Your task to perform on an android device: set an alarm Image 0: 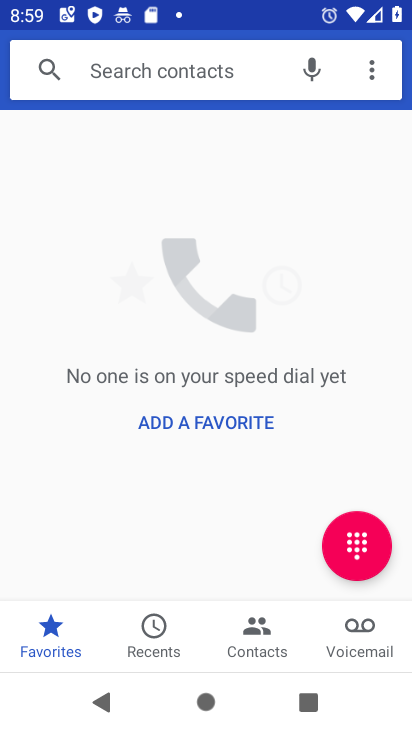
Step 0: press home button
Your task to perform on an android device: set an alarm Image 1: 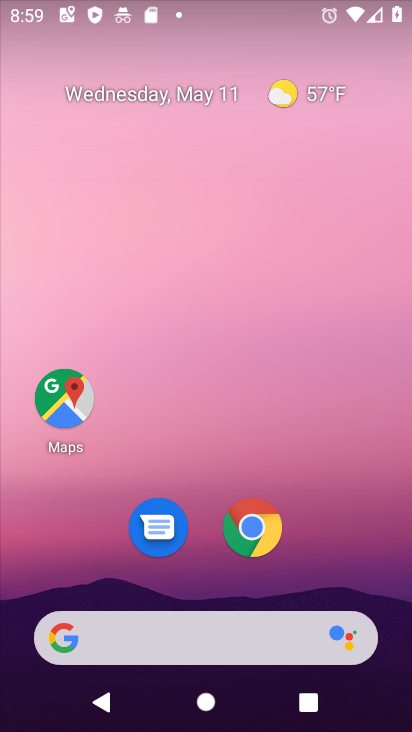
Step 1: drag from (354, 579) to (280, 2)
Your task to perform on an android device: set an alarm Image 2: 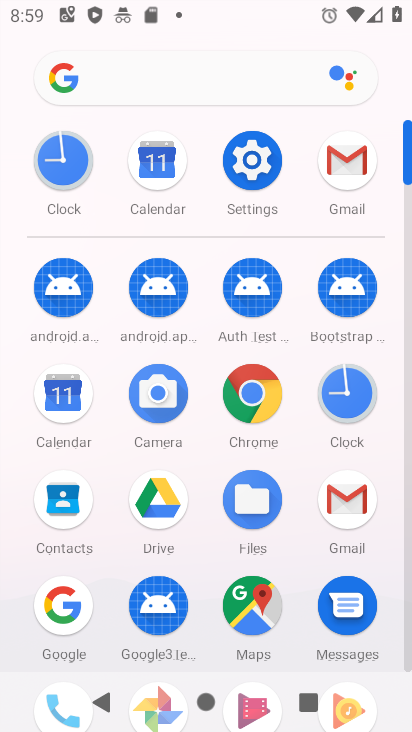
Step 2: click (35, 168)
Your task to perform on an android device: set an alarm Image 3: 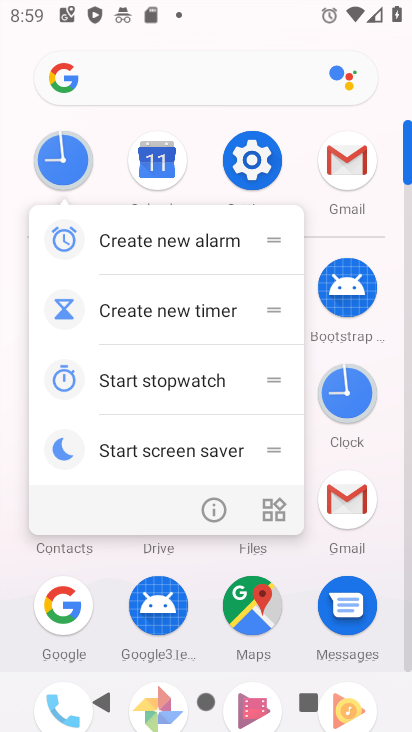
Step 3: click (49, 160)
Your task to perform on an android device: set an alarm Image 4: 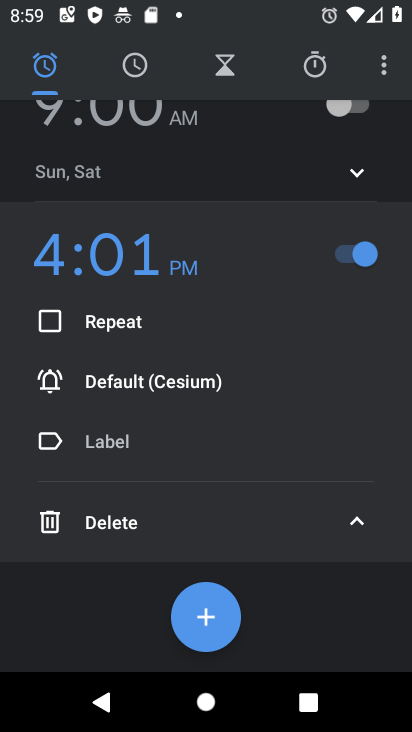
Step 4: click (205, 637)
Your task to perform on an android device: set an alarm Image 5: 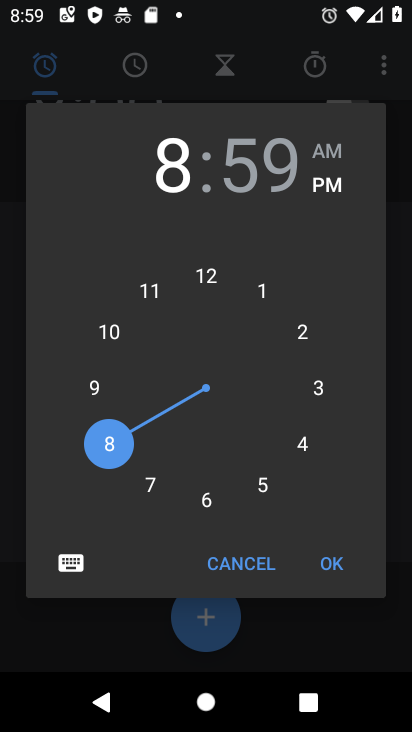
Step 5: click (261, 479)
Your task to perform on an android device: set an alarm Image 6: 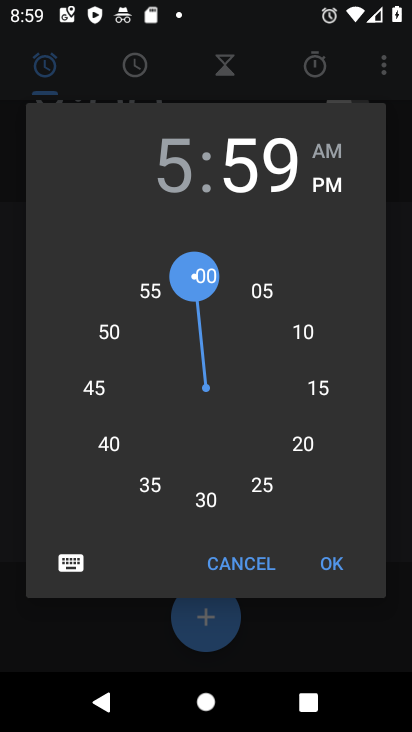
Step 6: click (211, 274)
Your task to perform on an android device: set an alarm Image 7: 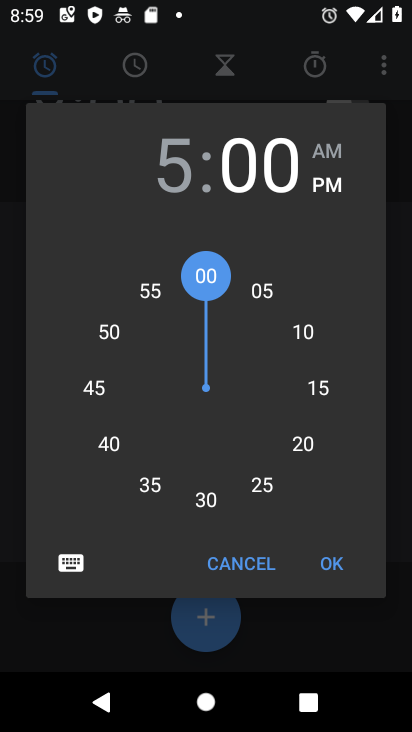
Step 7: click (330, 152)
Your task to perform on an android device: set an alarm Image 8: 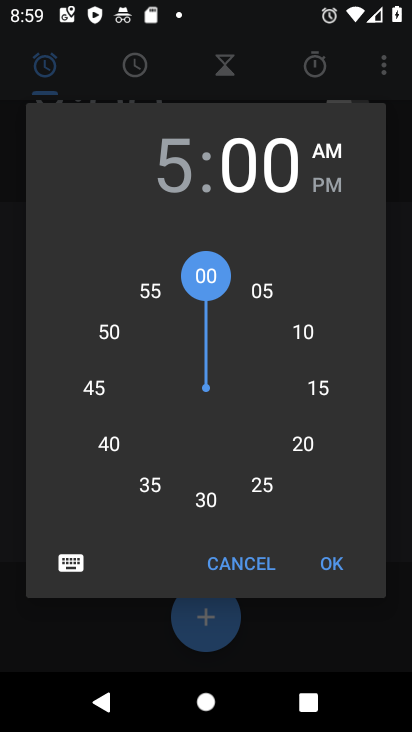
Step 8: click (330, 577)
Your task to perform on an android device: set an alarm Image 9: 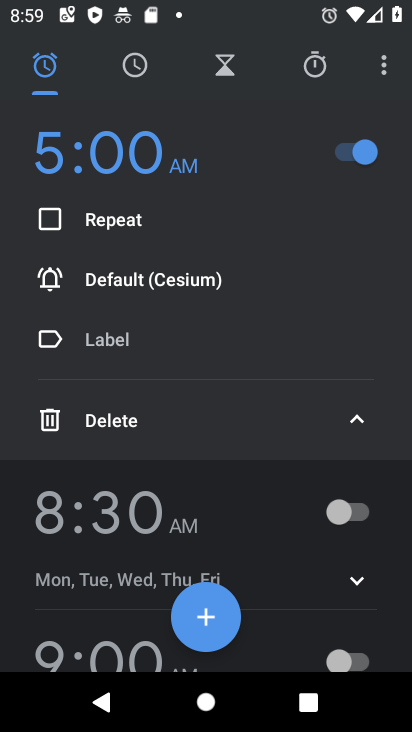
Step 9: task complete